Your task to perform on an android device: Is it going to rain today? Image 0: 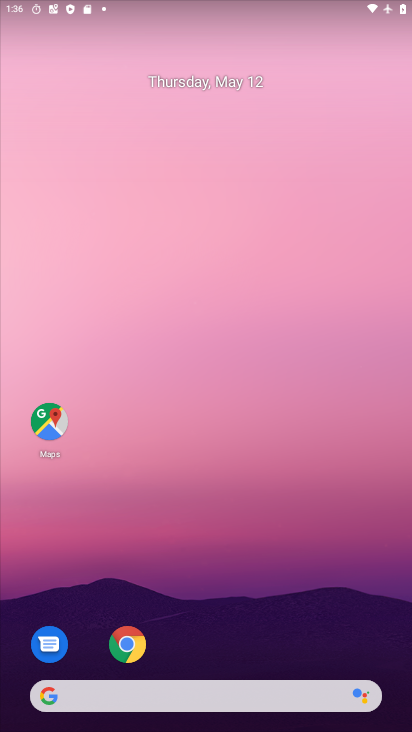
Step 0: drag from (240, 563) to (183, 129)
Your task to perform on an android device: Is it going to rain today? Image 1: 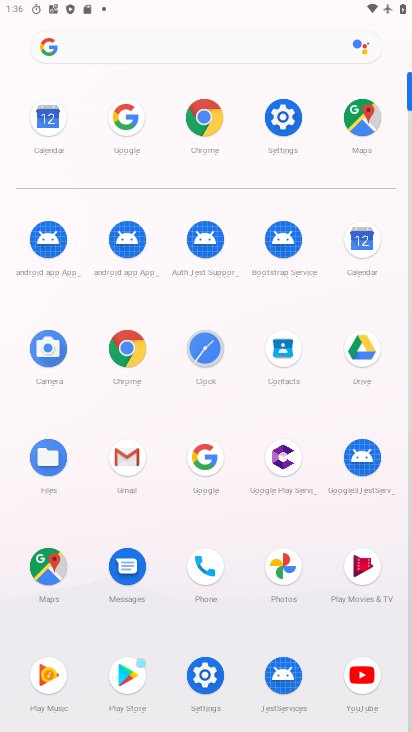
Step 1: click (129, 345)
Your task to perform on an android device: Is it going to rain today? Image 2: 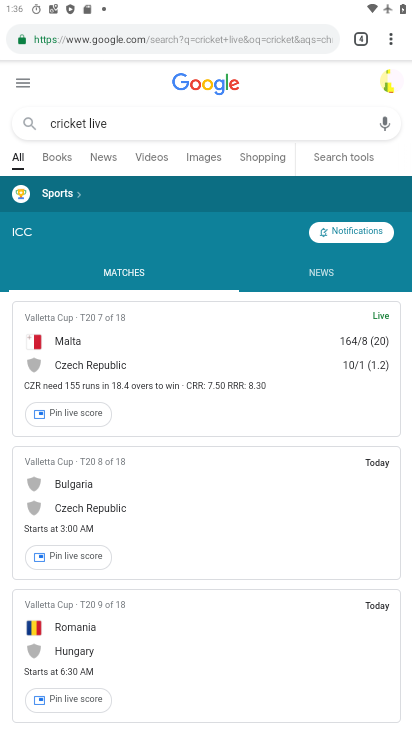
Step 2: click (171, 124)
Your task to perform on an android device: Is it going to rain today? Image 3: 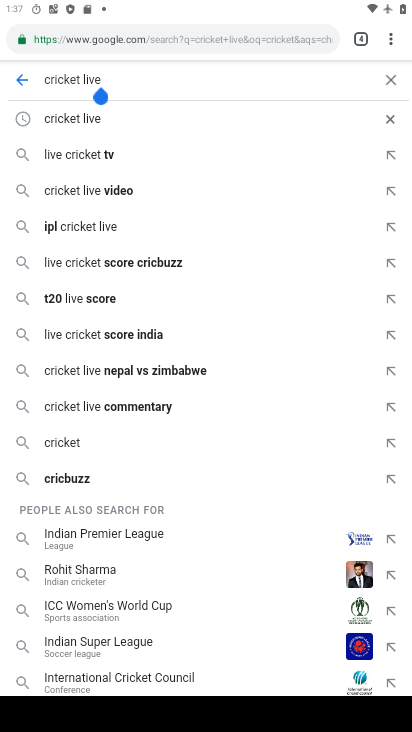
Step 3: click (392, 74)
Your task to perform on an android device: Is it going to rain today? Image 4: 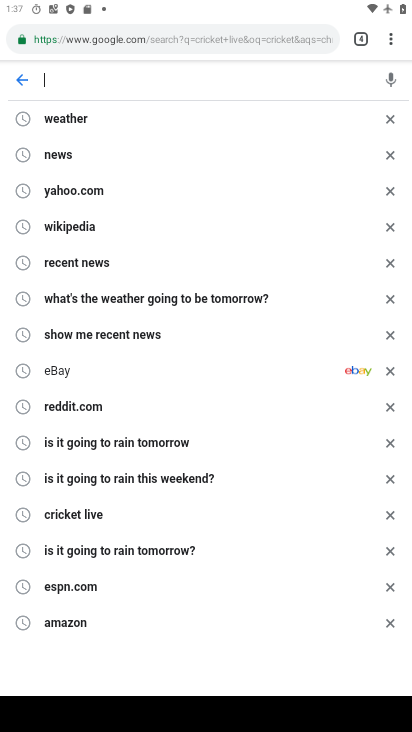
Step 4: type "is it going to rain today?"
Your task to perform on an android device: Is it going to rain today? Image 5: 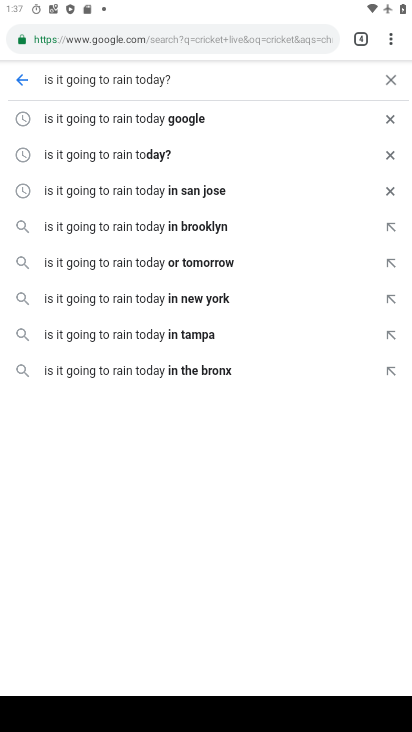
Step 5: click (176, 158)
Your task to perform on an android device: Is it going to rain today? Image 6: 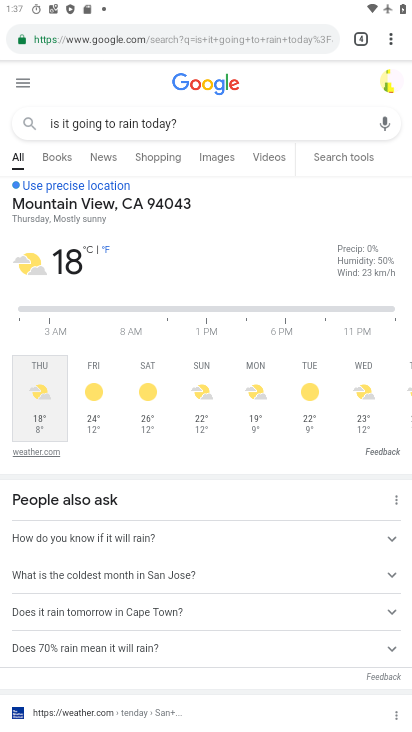
Step 6: task complete